Your task to perform on an android device: find snoozed emails in the gmail app Image 0: 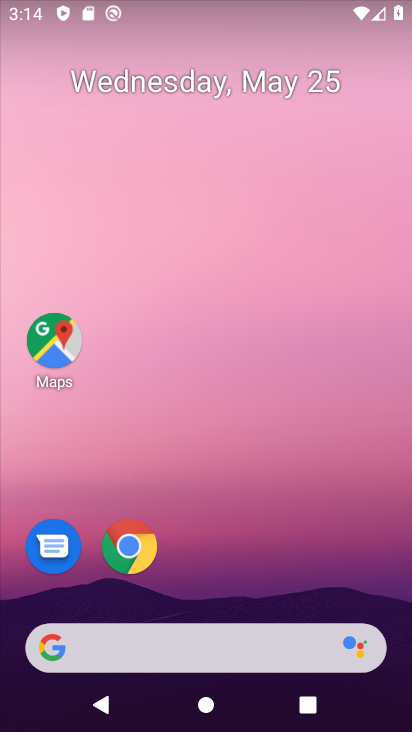
Step 0: drag from (186, 647) to (297, 135)
Your task to perform on an android device: find snoozed emails in the gmail app Image 1: 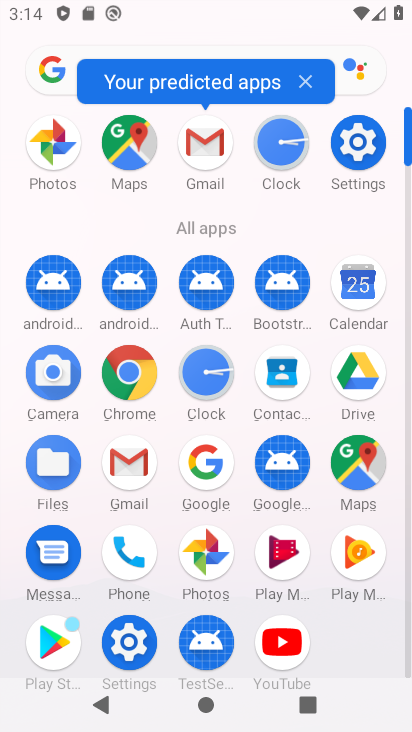
Step 1: drag from (125, 565) to (194, 339)
Your task to perform on an android device: find snoozed emails in the gmail app Image 2: 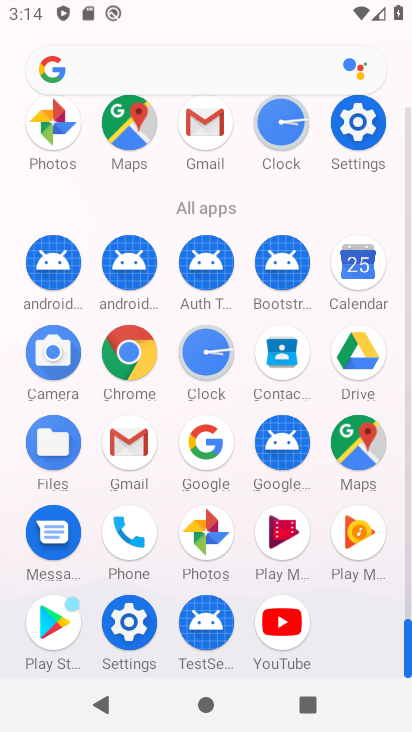
Step 2: click (128, 443)
Your task to perform on an android device: find snoozed emails in the gmail app Image 3: 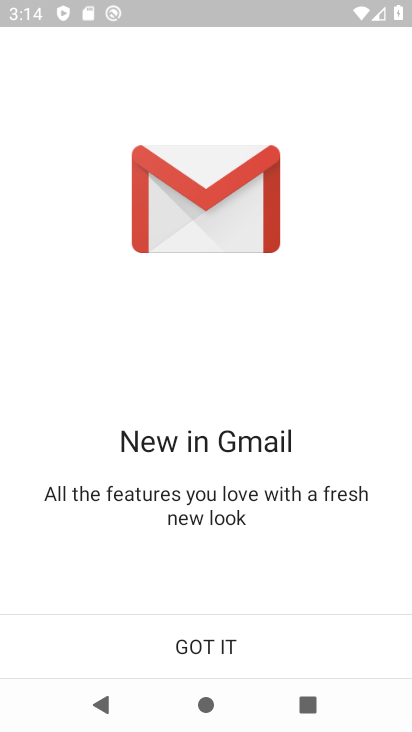
Step 3: click (238, 646)
Your task to perform on an android device: find snoozed emails in the gmail app Image 4: 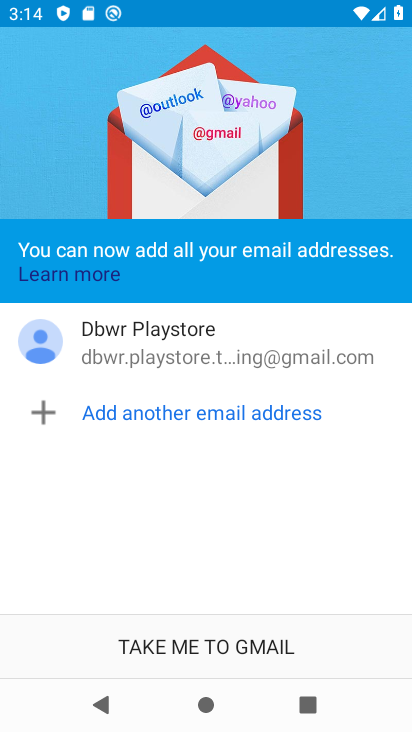
Step 4: click (238, 646)
Your task to perform on an android device: find snoozed emails in the gmail app Image 5: 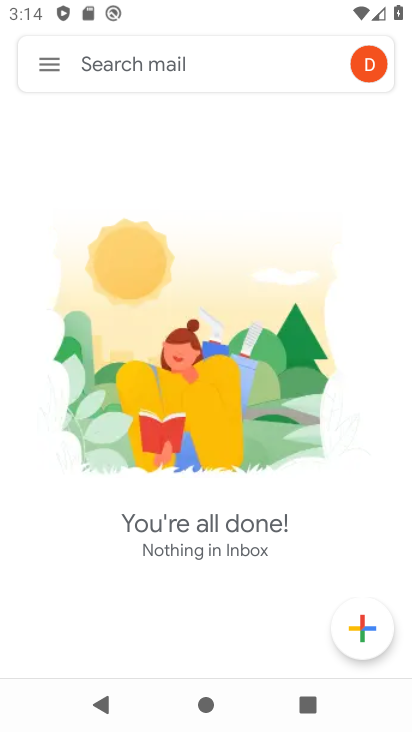
Step 5: click (74, 72)
Your task to perform on an android device: find snoozed emails in the gmail app Image 6: 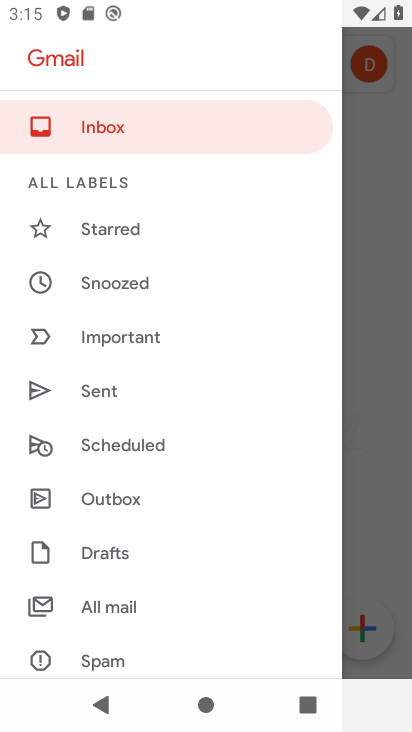
Step 6: click (148, 296)
Your task to perform on an android device: find snoozed emails in the gmail app Image 7: 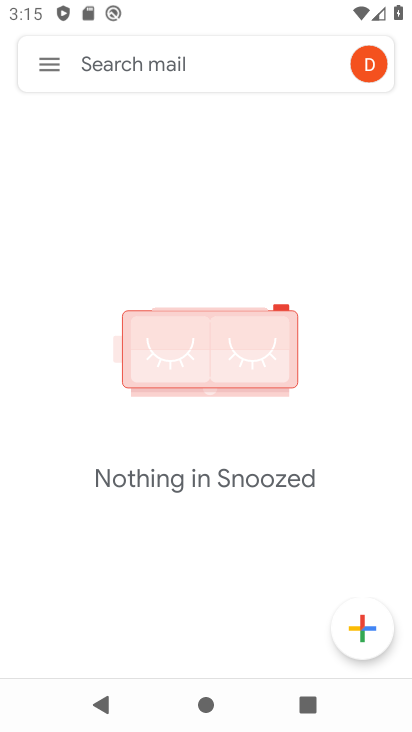
Step 7: task complete